Your task to perform on an android device: Show the shopping cart on ebay. Add alienware area 51 to the cart on ebay Image 0: 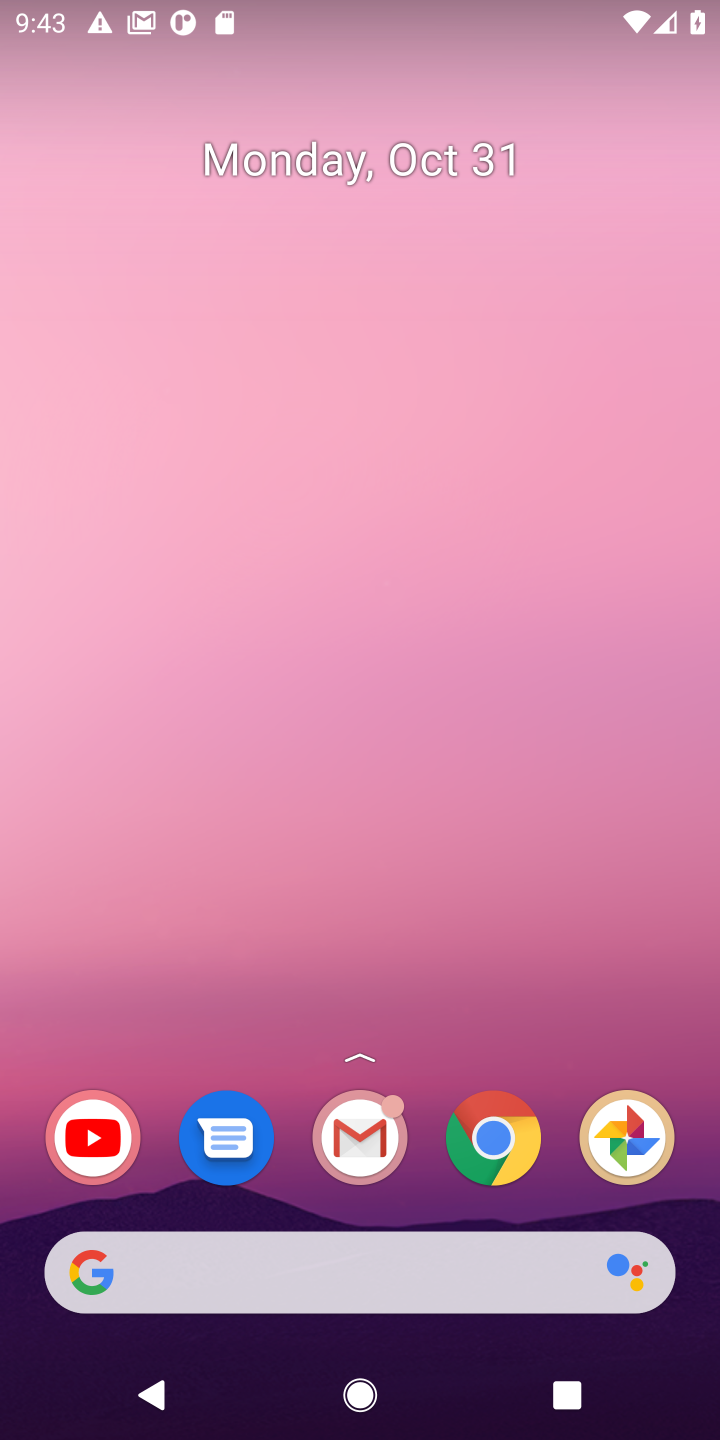
Step 0: drag from (475, 1256) to (460, 218)
Your task to perform on an android device: Show the shopping cart on ebay. Add alienware area 51 to the cart on ebay Image 1: 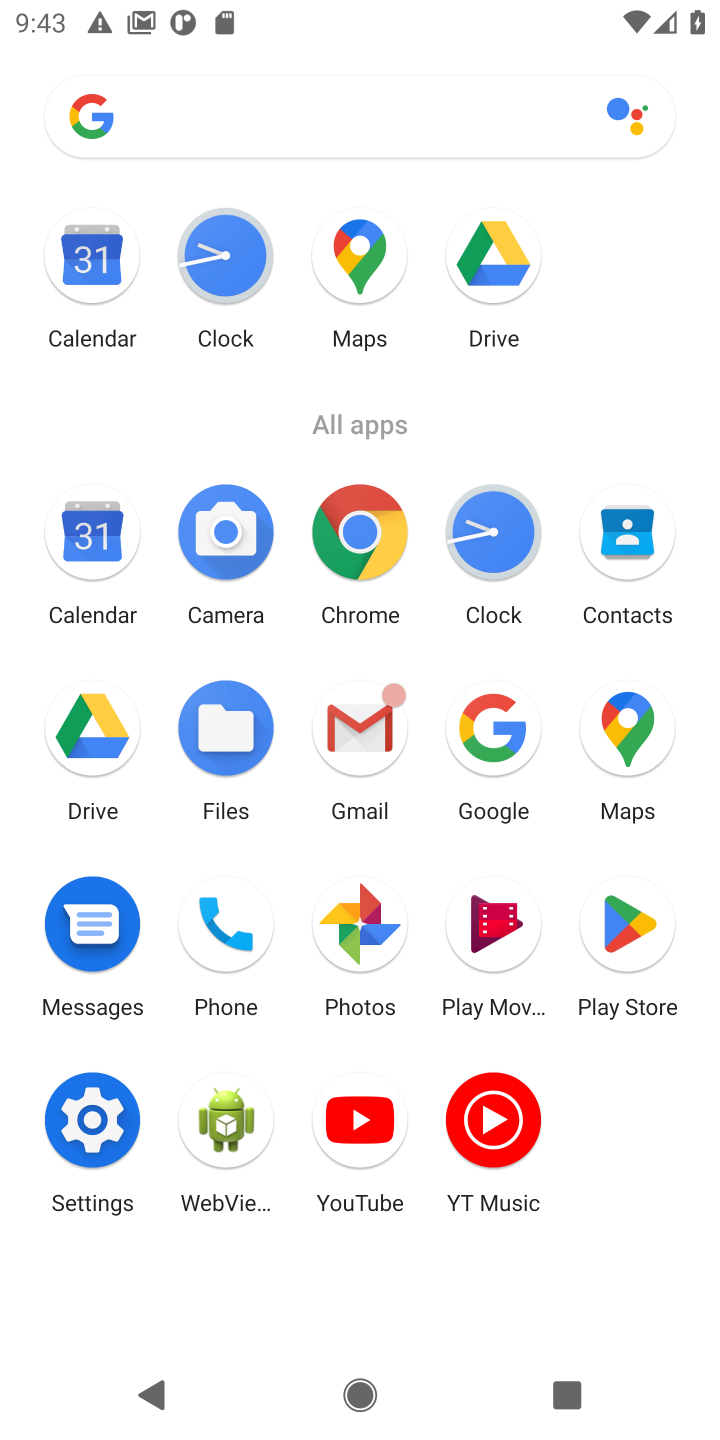
Step 1: click (350, 521)
Your task to perform on an android device: Show the shopping cart on ebay. Add alienware area 51 to the cart on ebay Image 2: 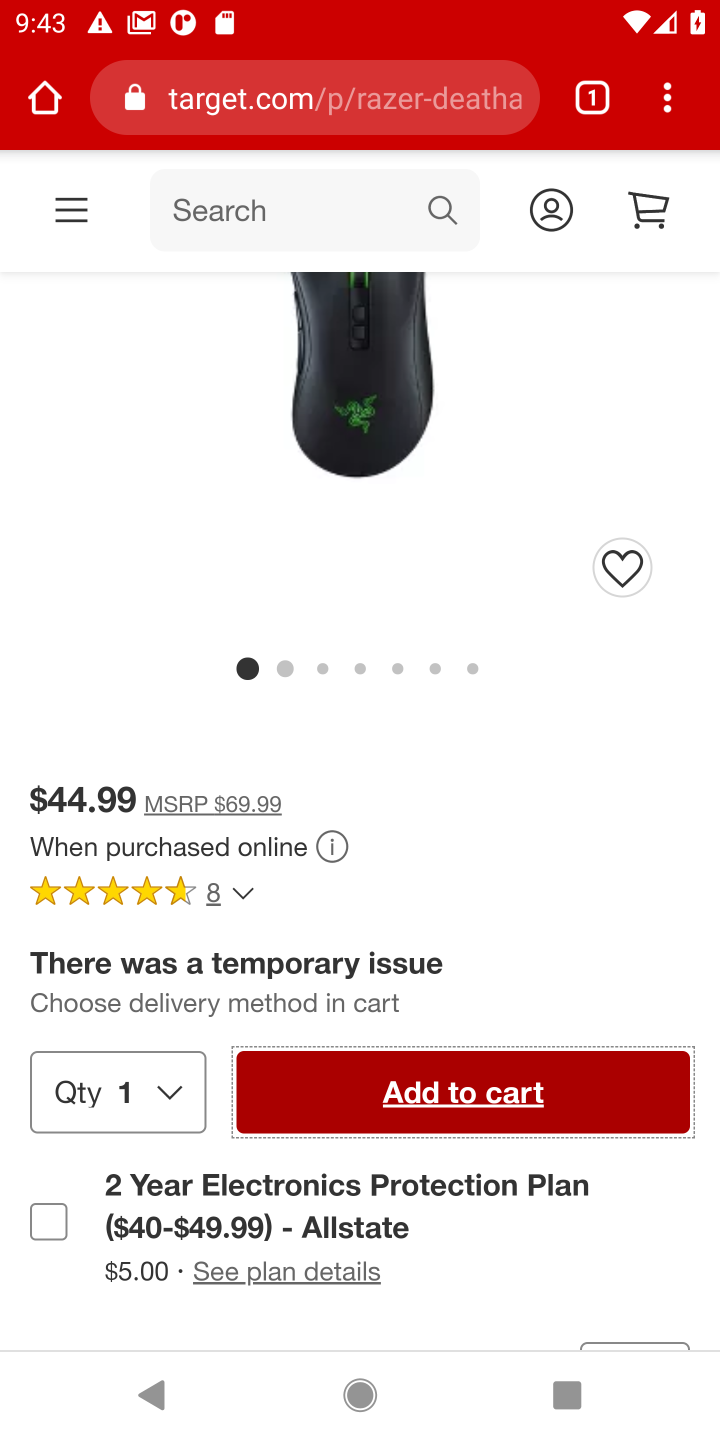
Step 2: click (314, 89)
Your task to perform on an android device: Show the shopping cart on ebay. Add alienware area 51 to the cart on ebay Image 3: 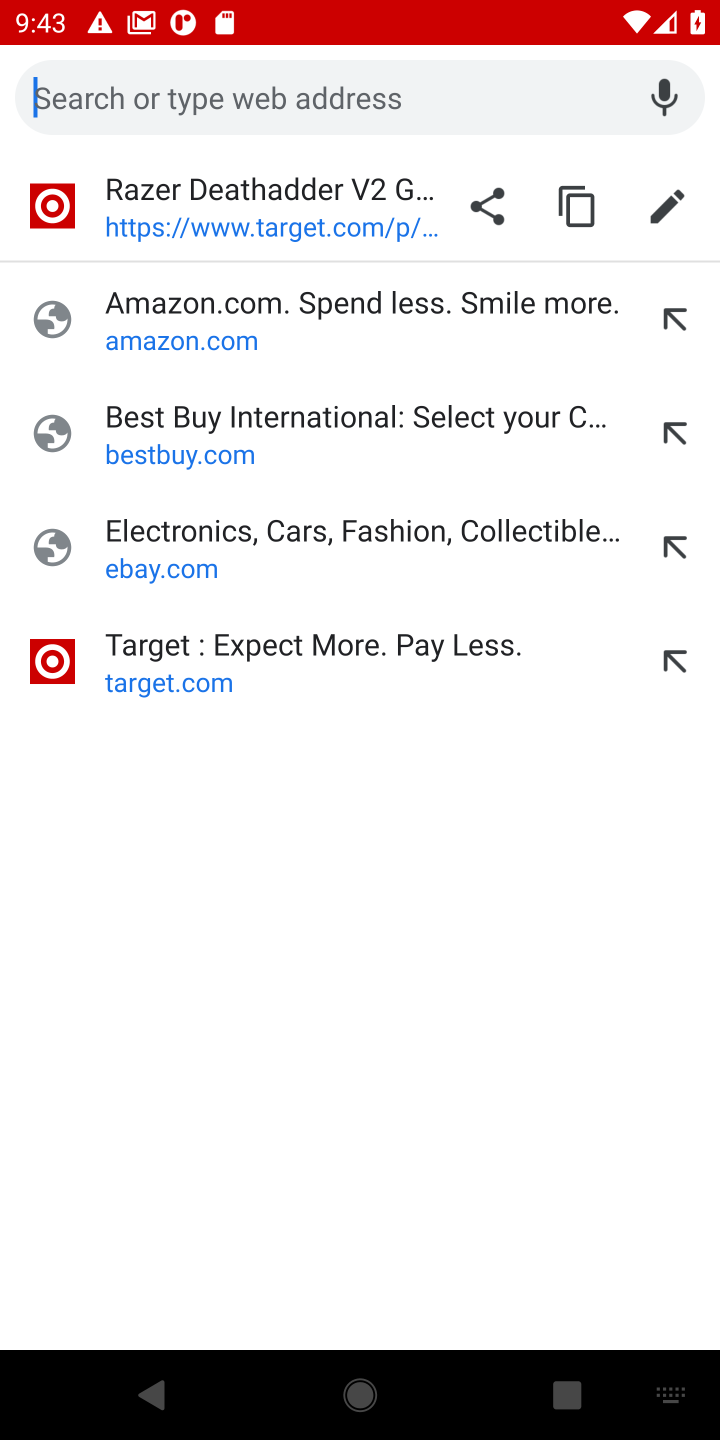
Step 3: type " ebay"
Your task to perform on an android device: Show the shopping cart on ebay. Add alienware area 51 to the cart on ebay Image 4: 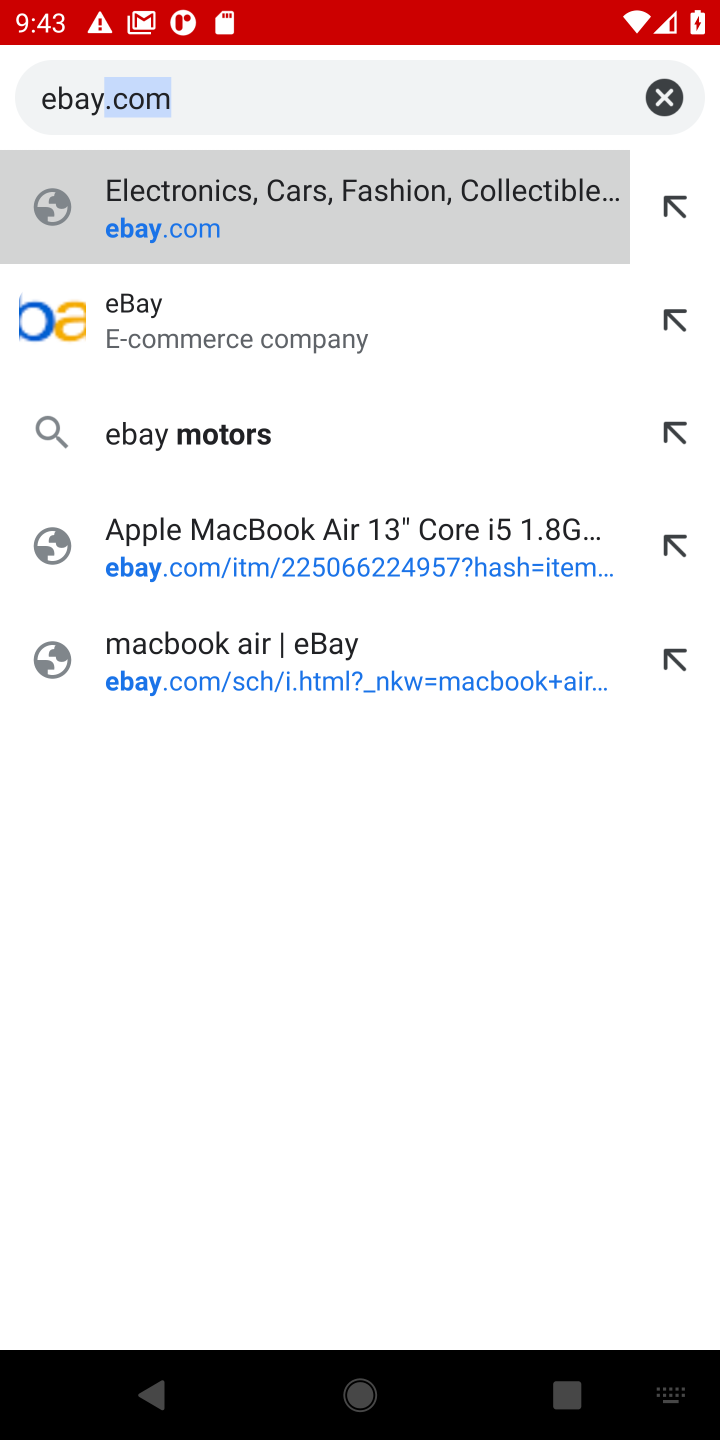
Step 4: click (190, 227)
Your task to perform on an android device: Show the shopping cart on ebay. Add alienware area 51 to the cart on ebay Image 5: 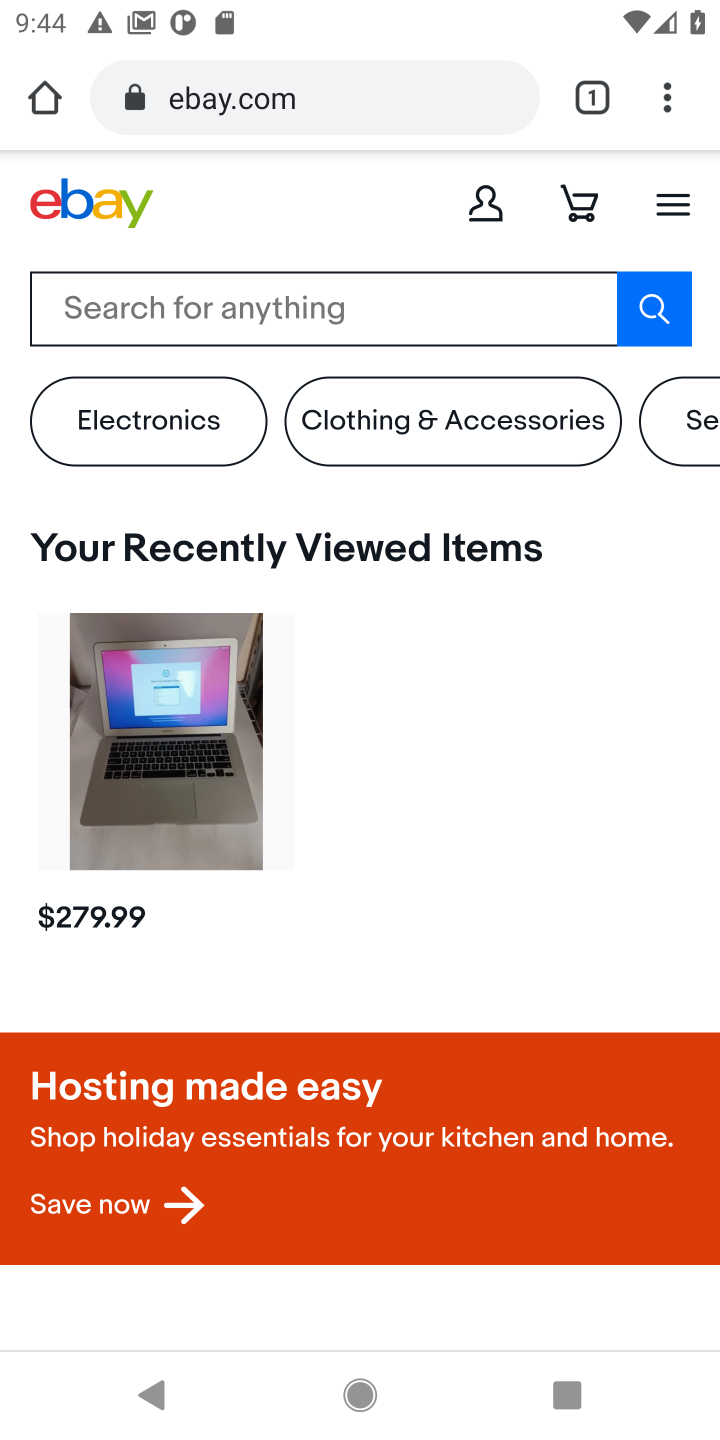
Step 5: click (168, 314)
Your task to perform on an android device: Show the shopping cart on ebay. Add alienware area 51 to the cart on ebay Image 6: 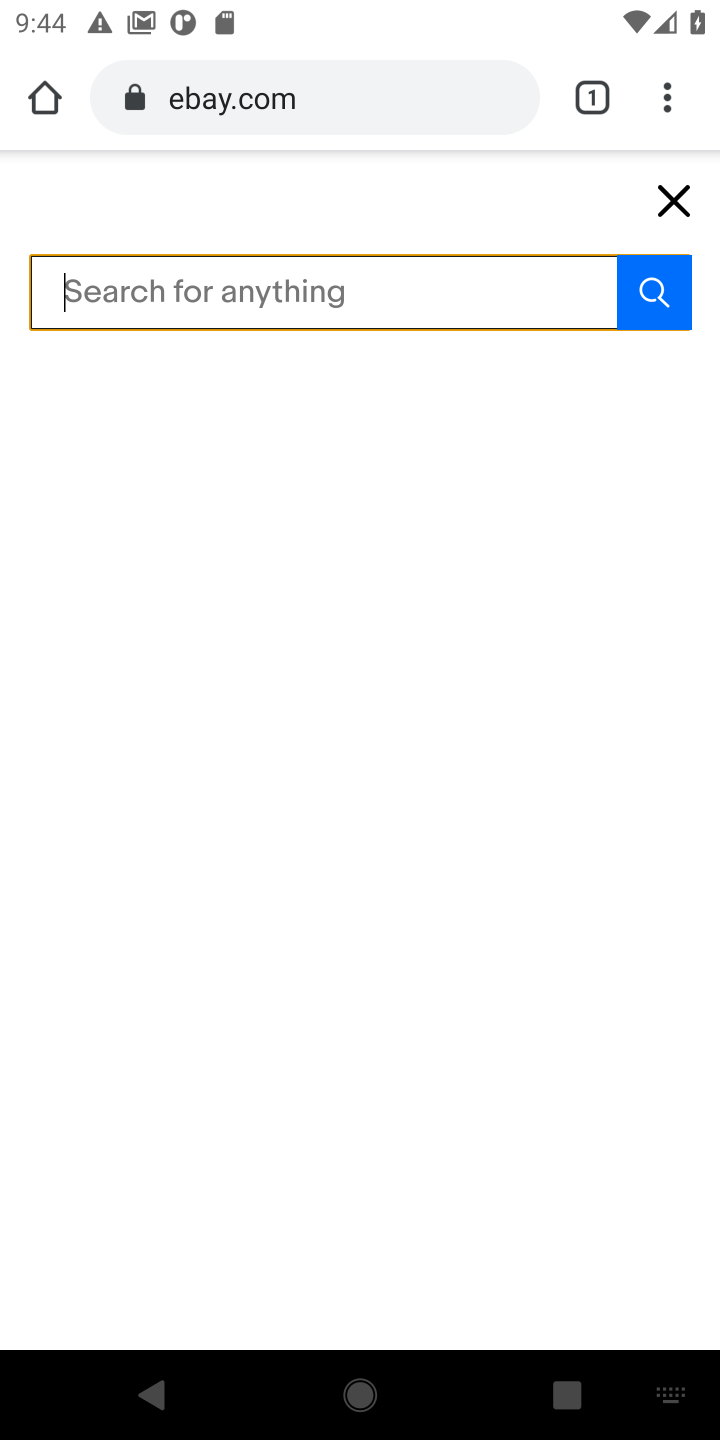
Step 6: type "alienware area"
Your task to perform on an android device: Show the shopping cart on ebay. Add alienware area 51 to the cart on ebay Image 7: 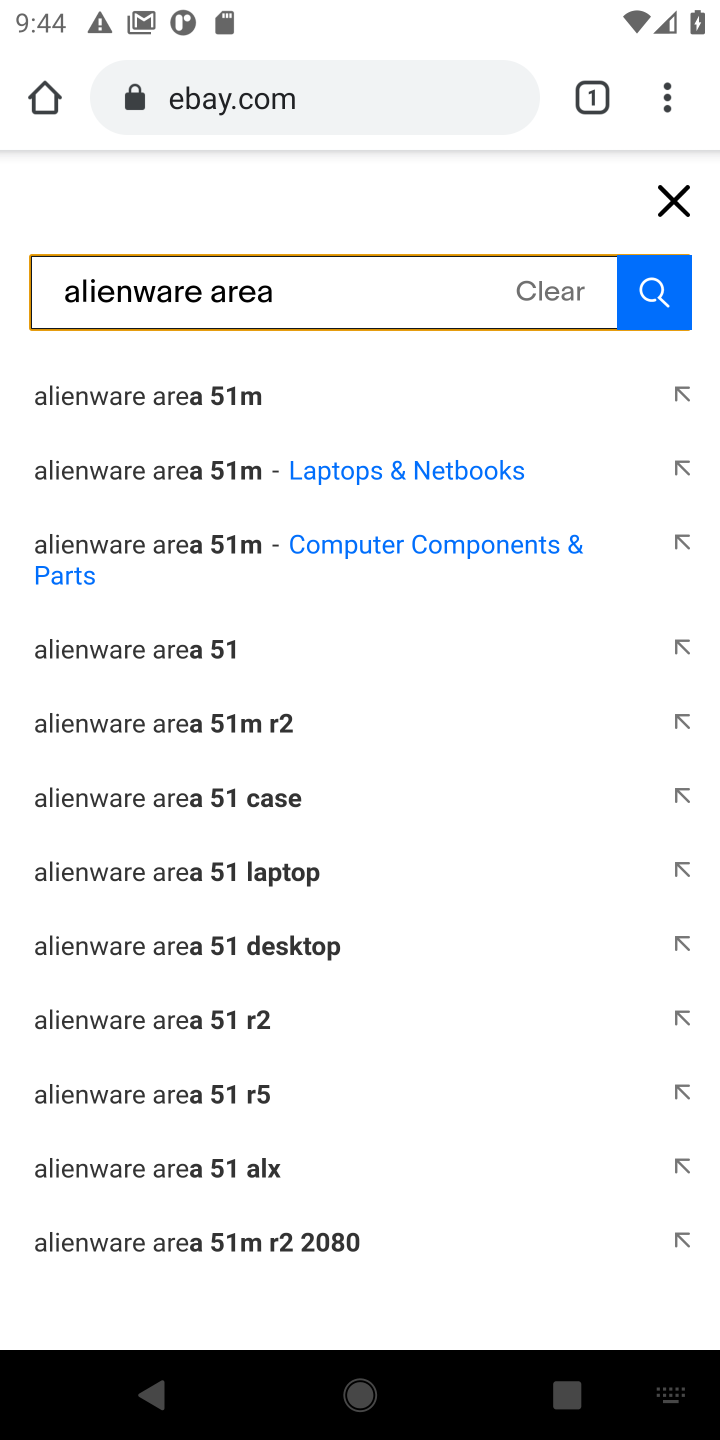
Step 7: click (646, 296)
Your task to perform on an android device: Show the shopping cart on ebay. Add alienware area 51 to the cart on ebay Image 8: 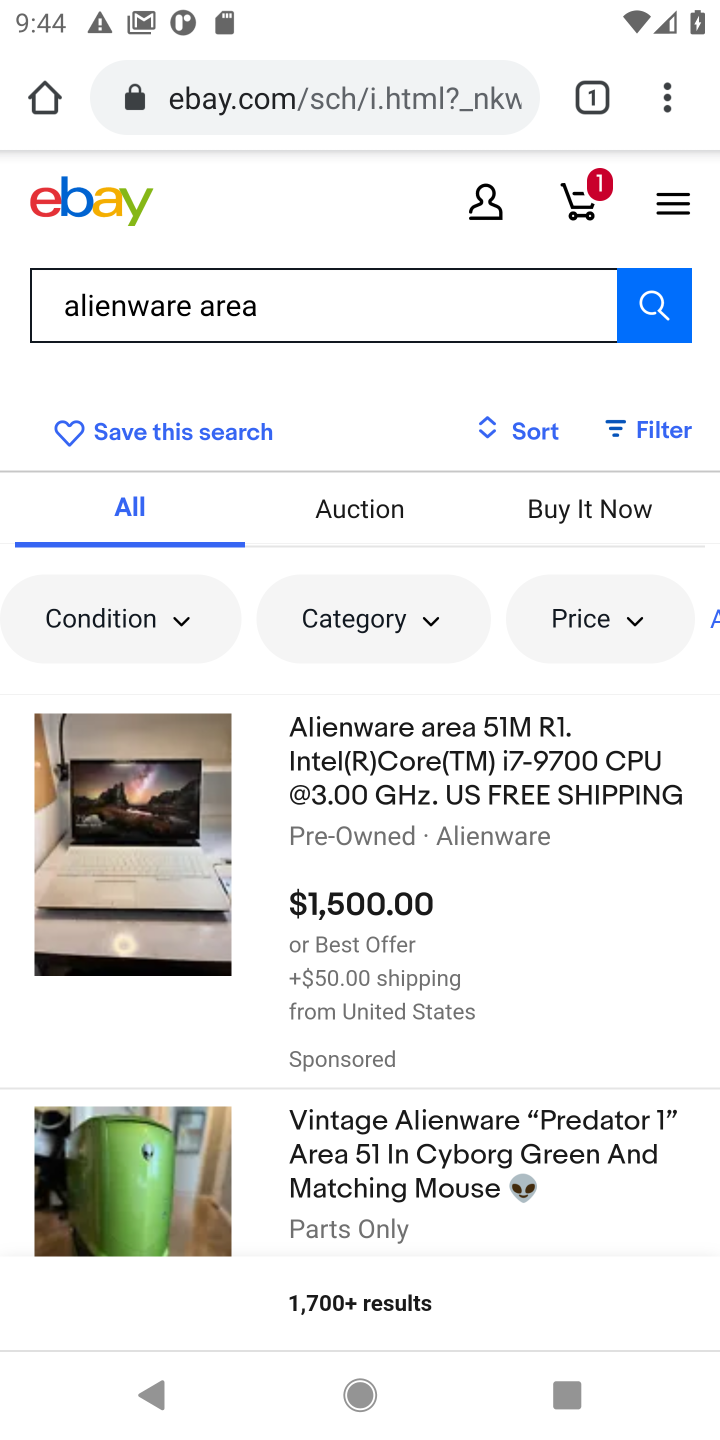
Step 8: click (300, 781)
Your task to perform on an android device: Show the shopping cart on ebay. Add alienware area 51 to the cart on ebay Image 9: 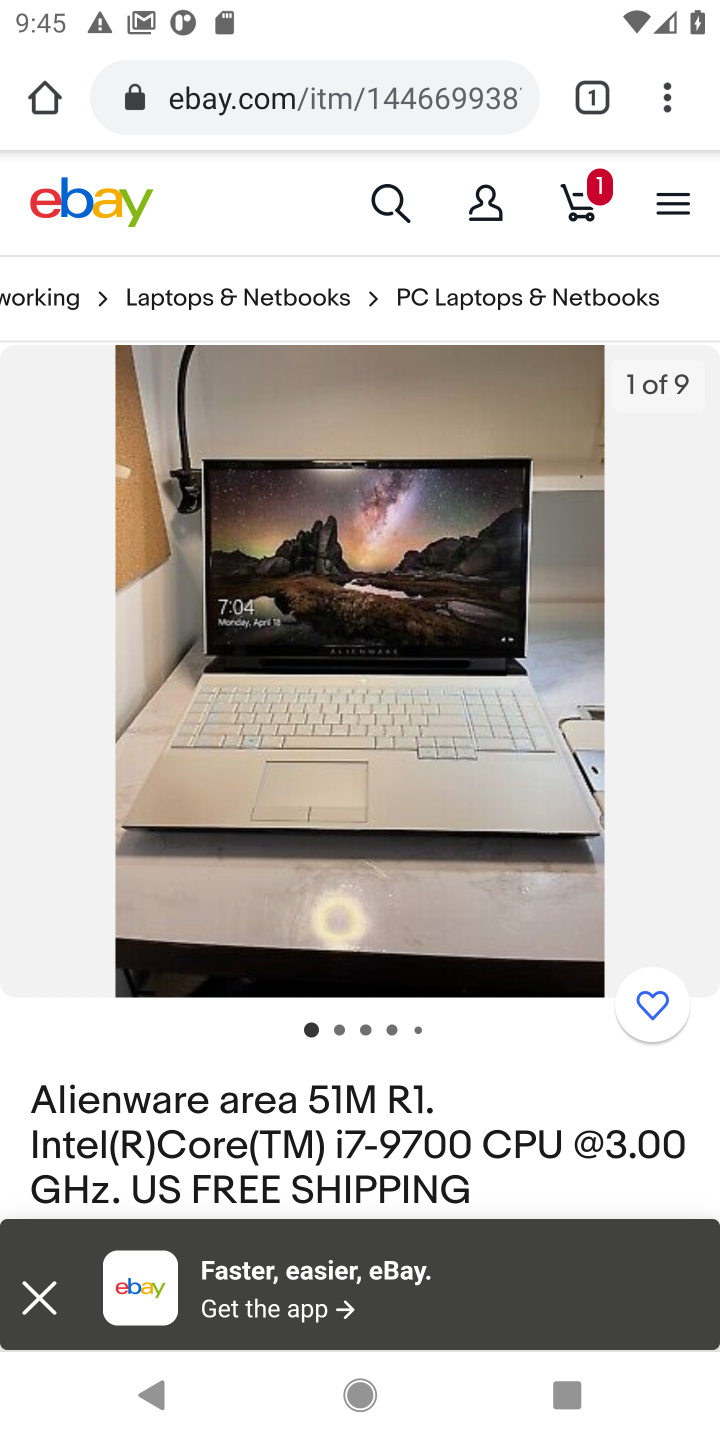
Step 9: drag from (104, 772) to (183, 299)
Your task to perform on an android device: Show the shopping cart on ebay. Add alienware area 51 to the cart on ebay Image 10: 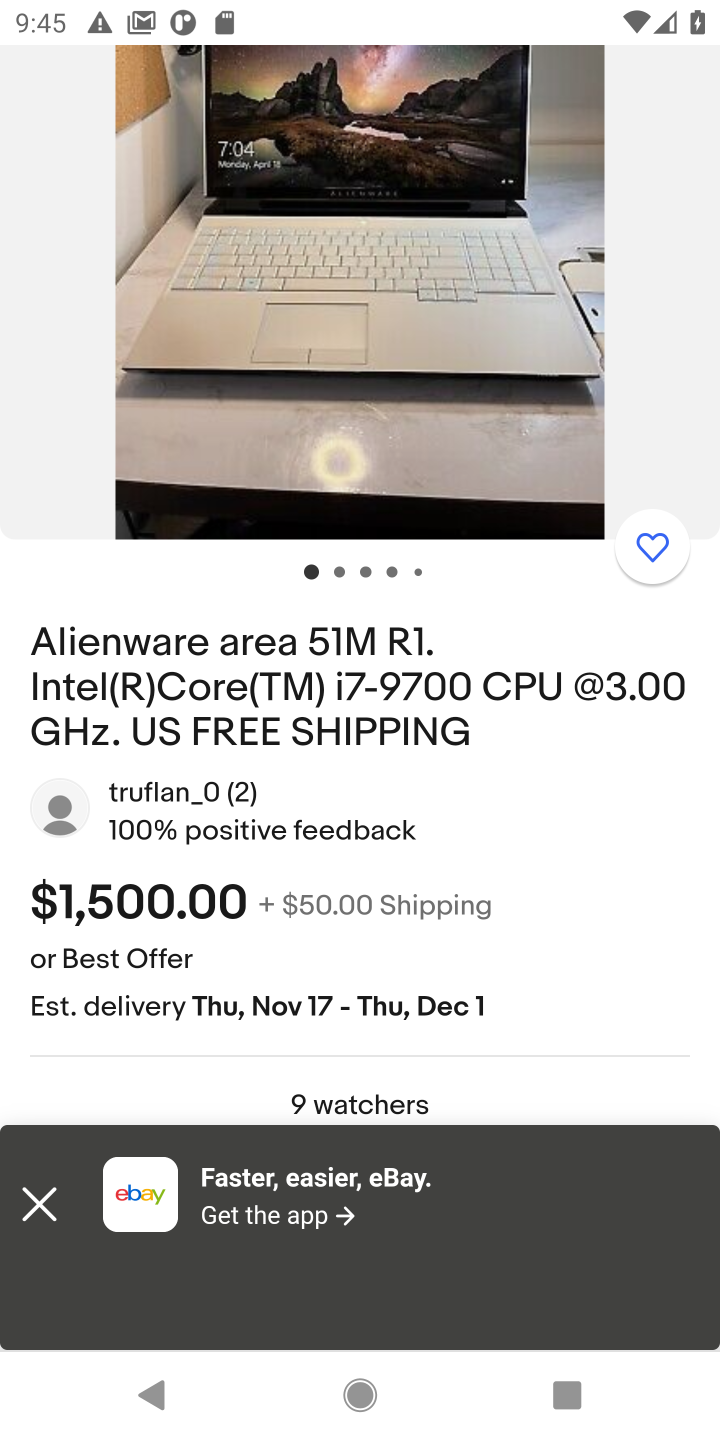
Step 10: drag from (583, 694) to (599, 309)
Your task to perform on an android device: Show the shopping cart on ebay. Add alienware area 51 to the cart on ebay Image 11: 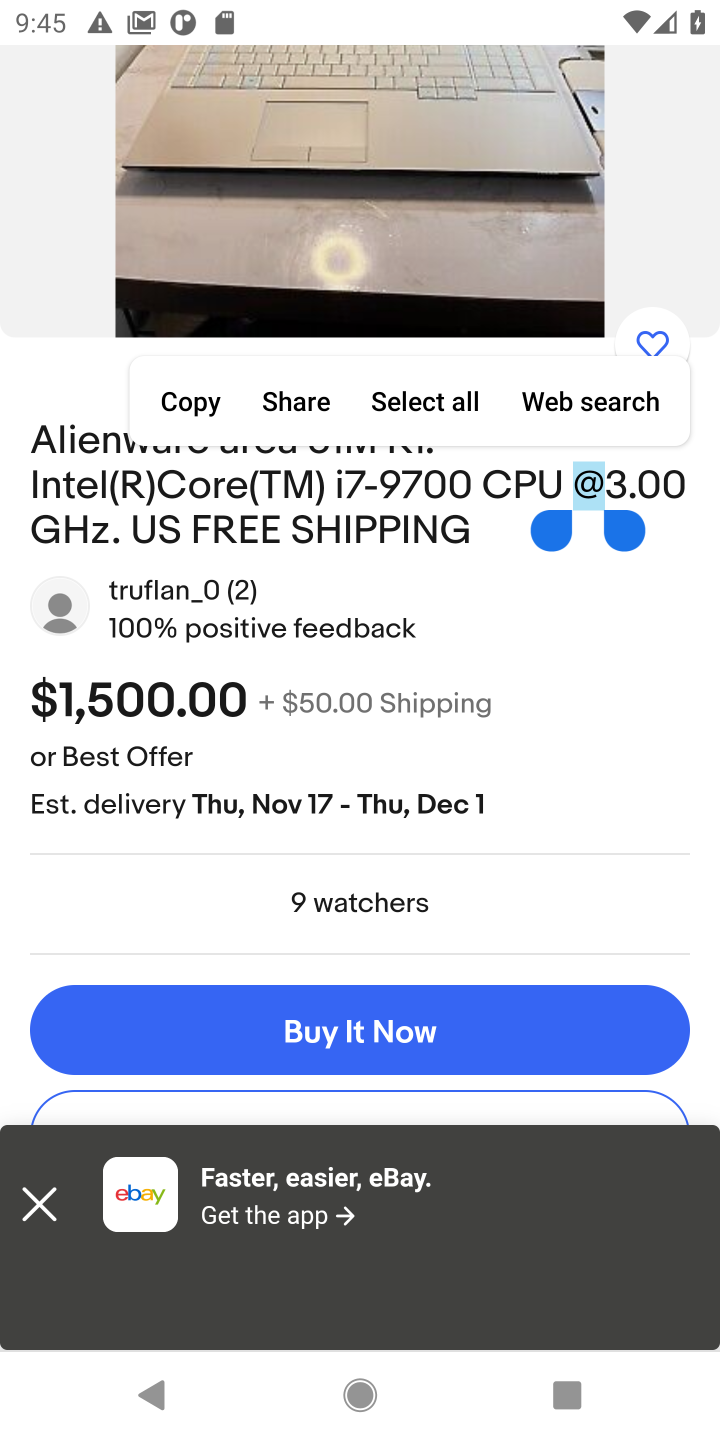
Step 11: drag from (546, 834) to (612, 192)
Your task to perform on an android device: Show the shopping cart on ebay. Add alienware area 51 to the cart on ebay Image 12: 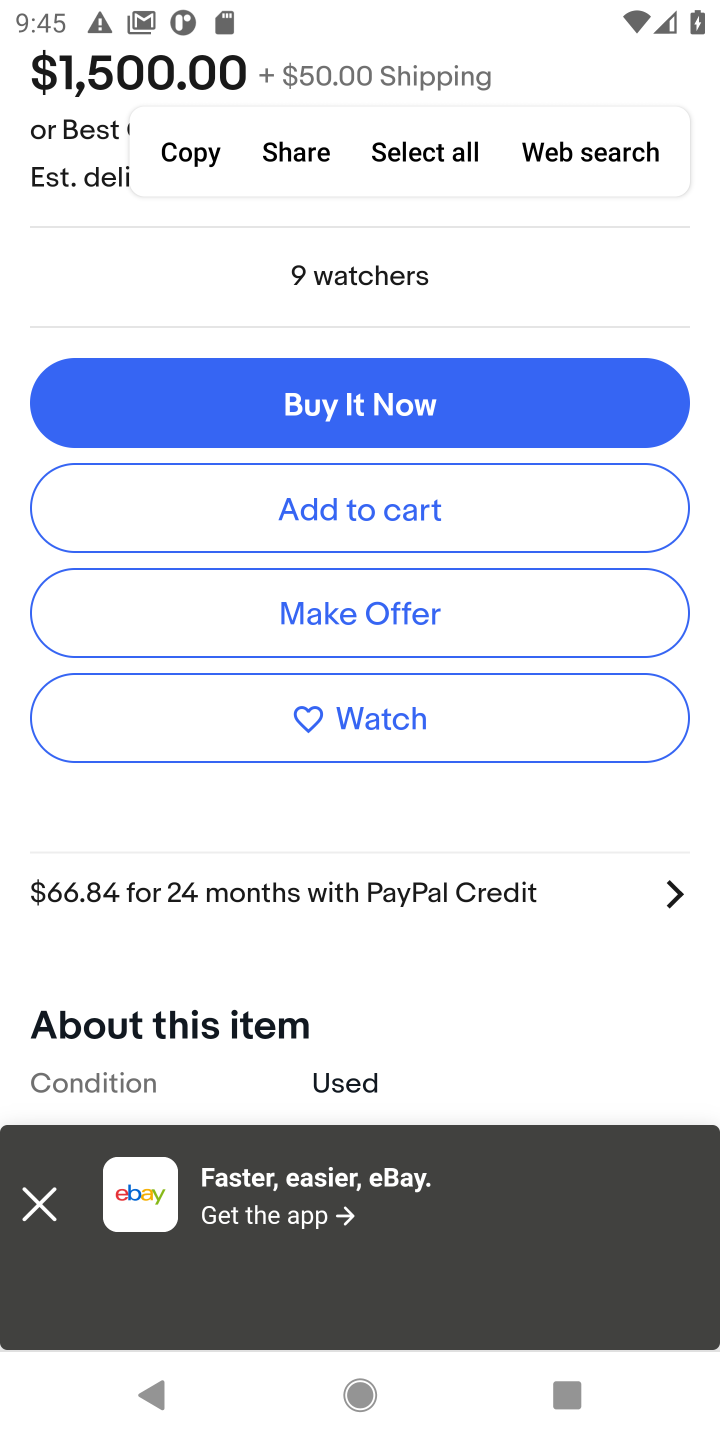
Step 12: click (405, 509)
Your task to perform on an android device: Show the shopping cart on ebay. Add alienware area 51 to the cart on ebay Image 13: 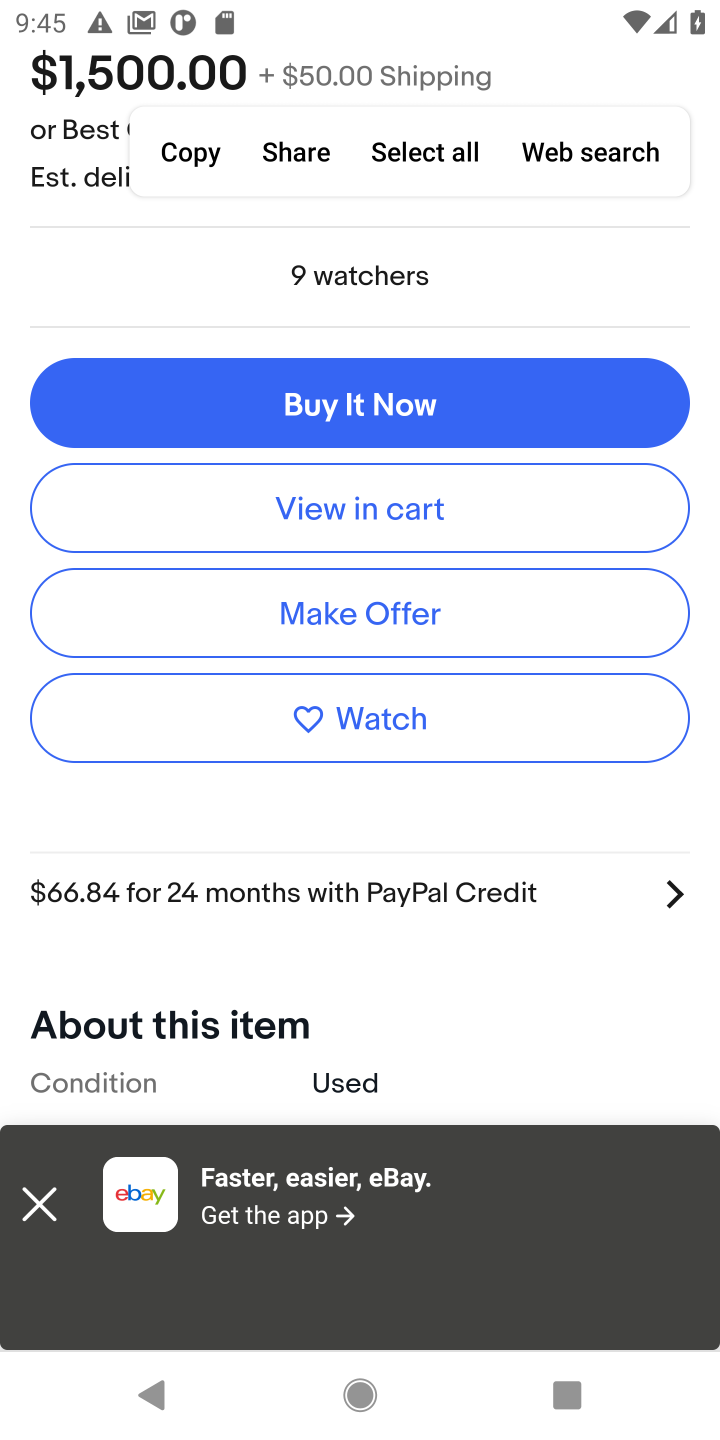
Step 13: task complete